Your task to perform on an android device: Install the News app Image 0: 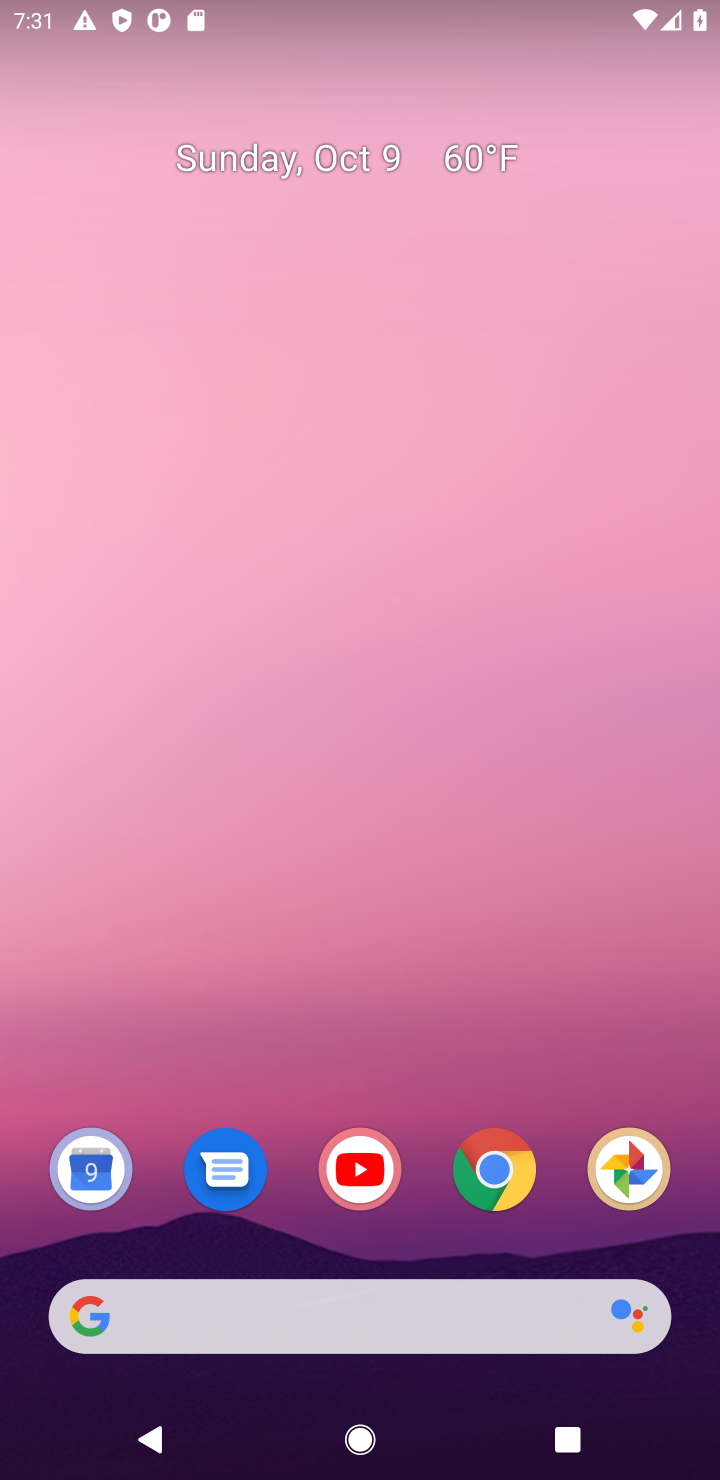
Step 0: drag from (407, 1173) to (454, 12)
Your task to perform on an android device: Install the News app Image 1: 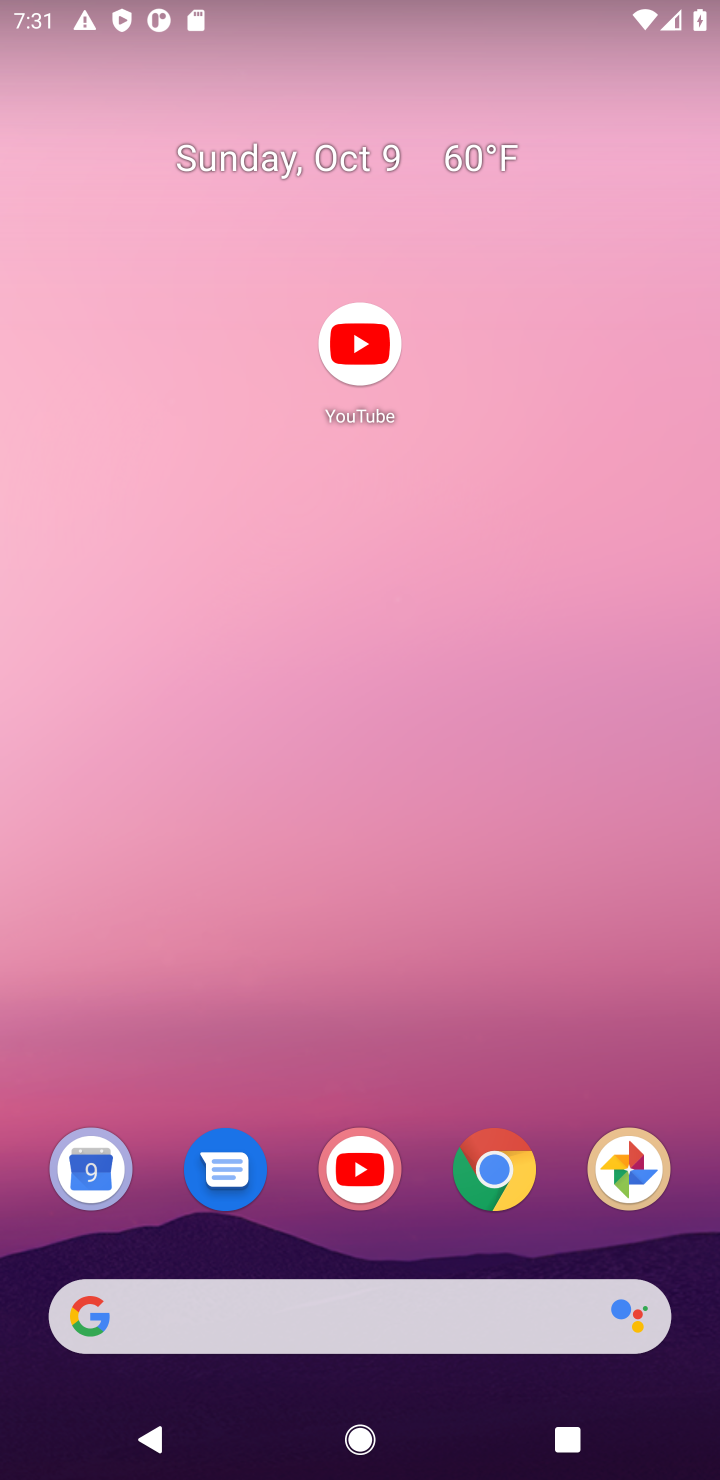
Step 1: drag from (382, 839) to (482, 125)
Your task to perform on an android device: Install the News app Image 2: 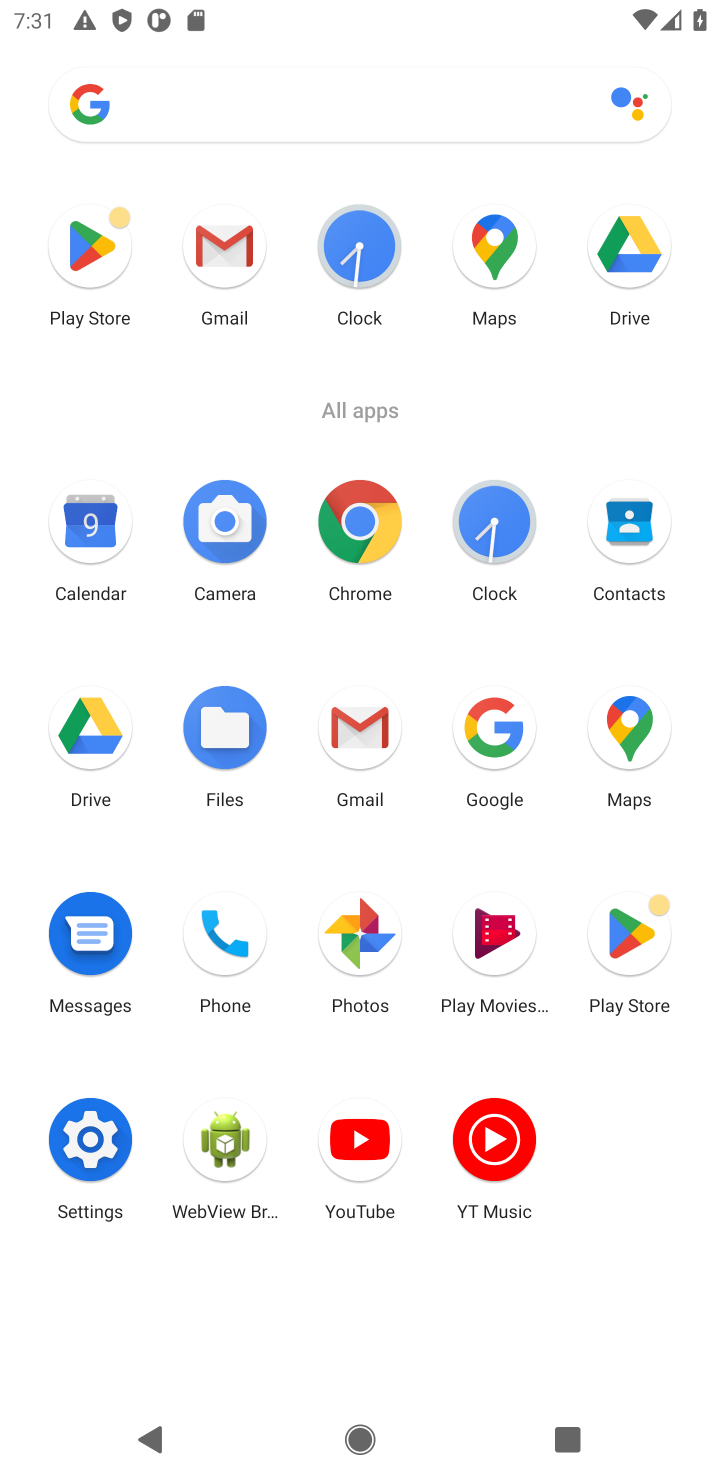
Step 2: click (644, 928)
Your task to perform on an android device: Install the News app Image 3: 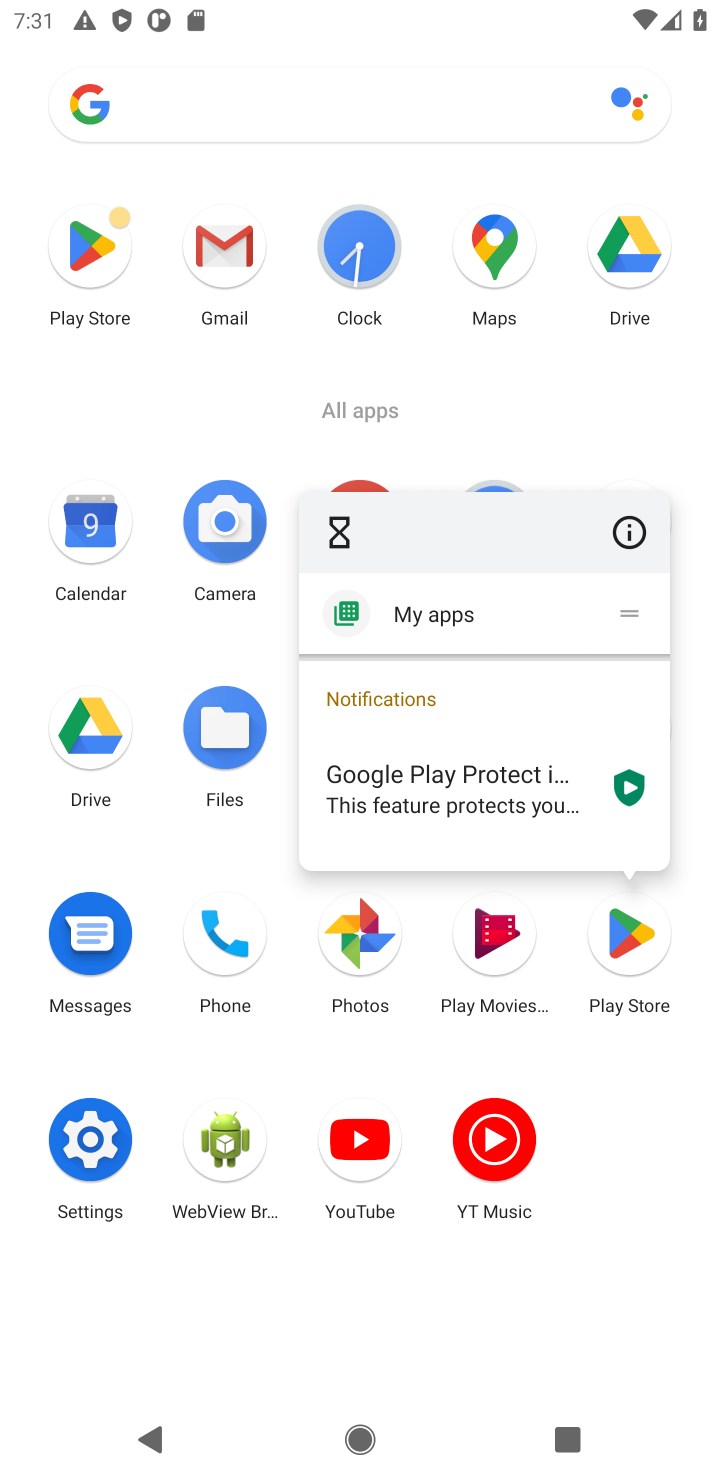
Step 3: click (632, 939)
Your task to perform on an android device: Install the News app Image 4: 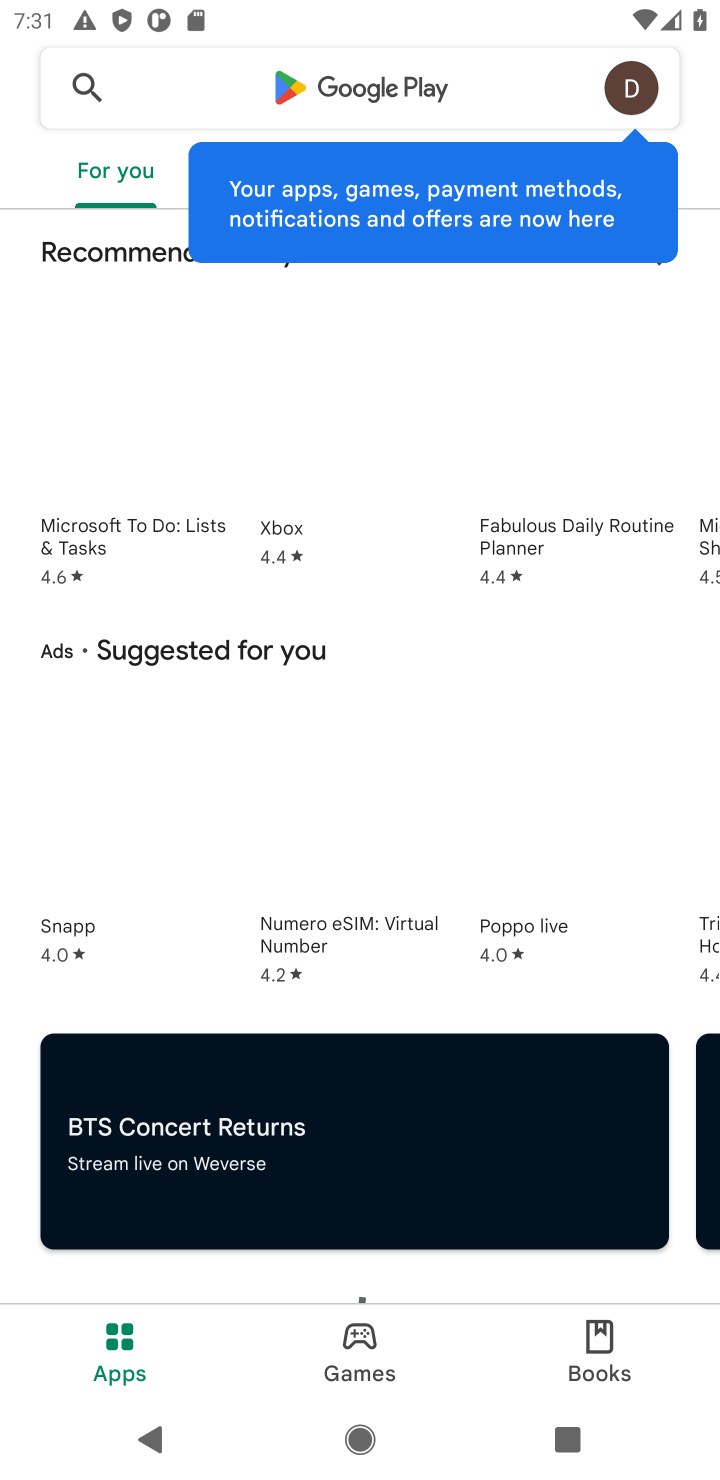
Step 4: click (325, 103)
Your task to perform on an android device: Install the News app Image 5: 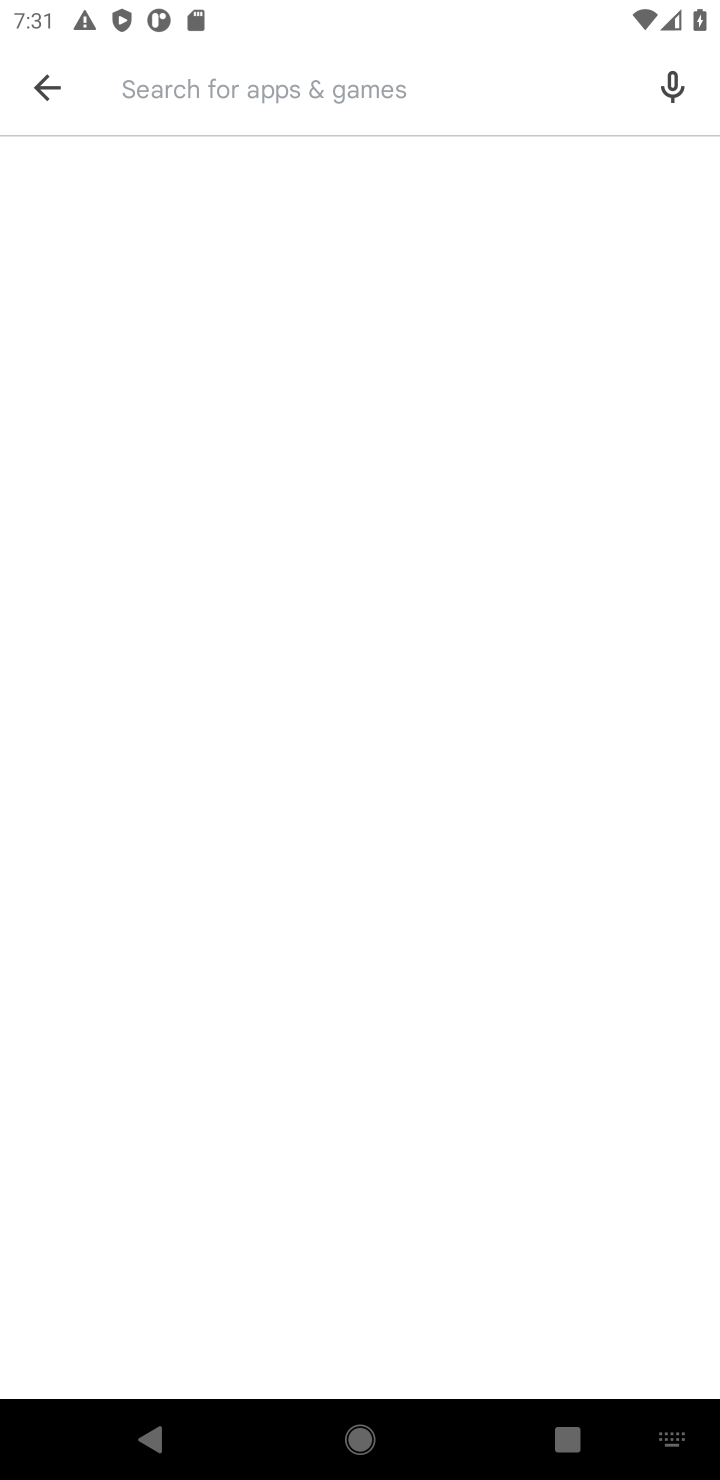
Step 5: type "news"
Your task to perform on an android device: Install the News app Image 6: 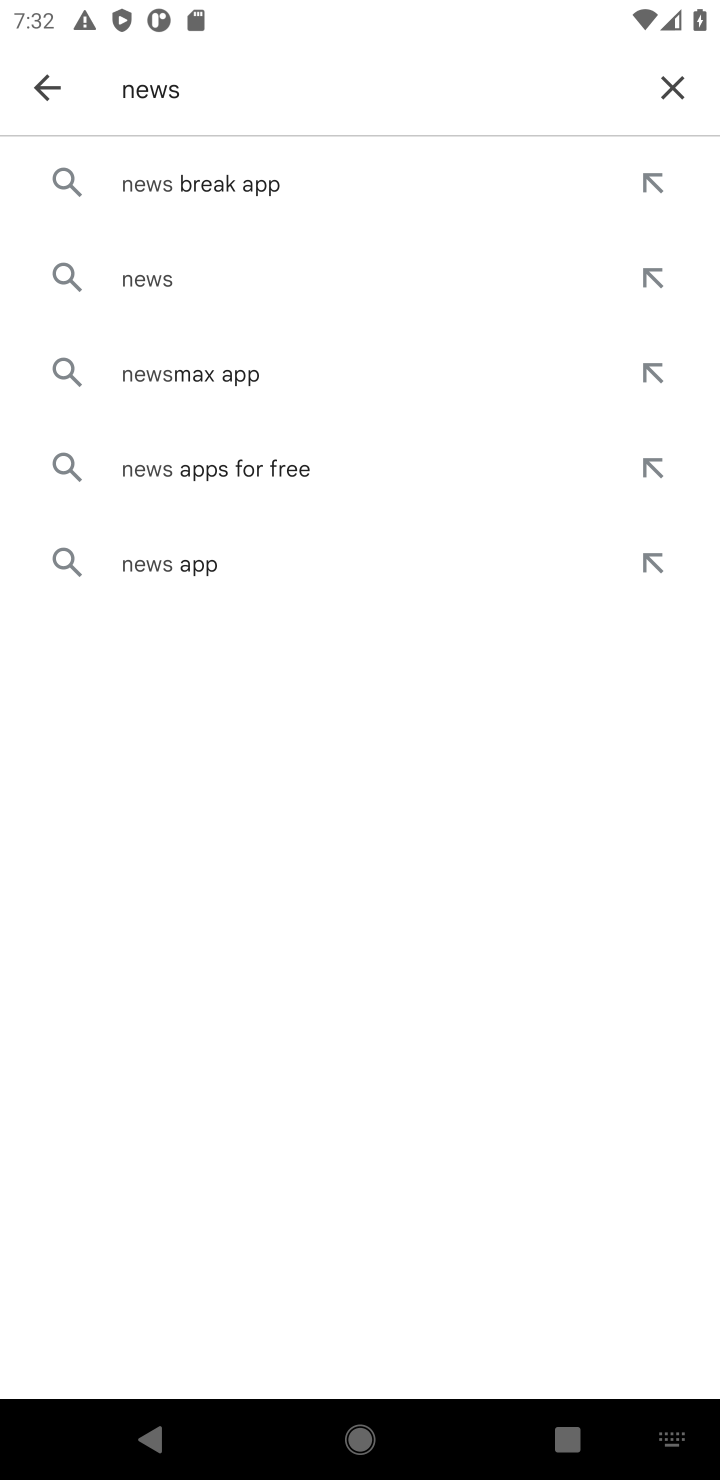
Step 6: press enter
Your task to perform on an android device: Install the News app Image 7: 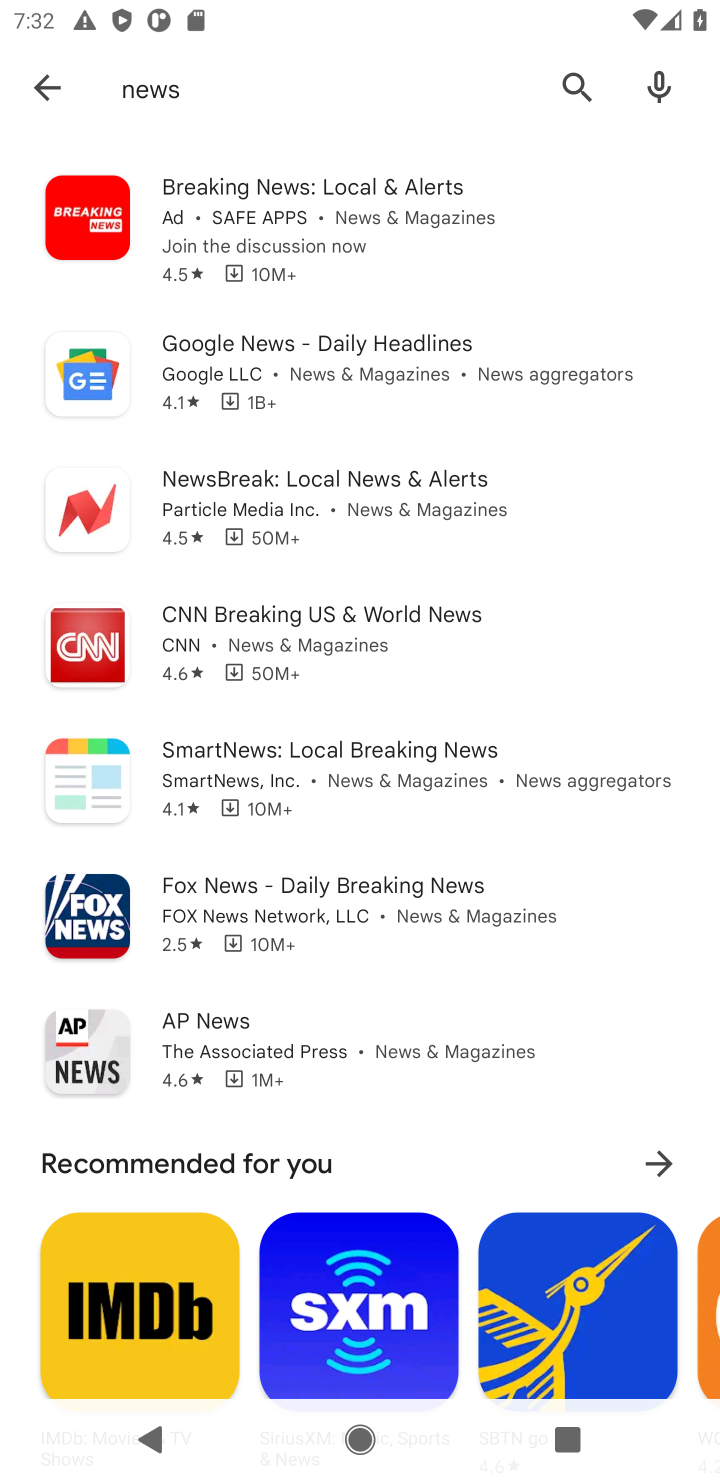
Step 7: press enter
Your task to perform on an android device: Install the News app Image 8: 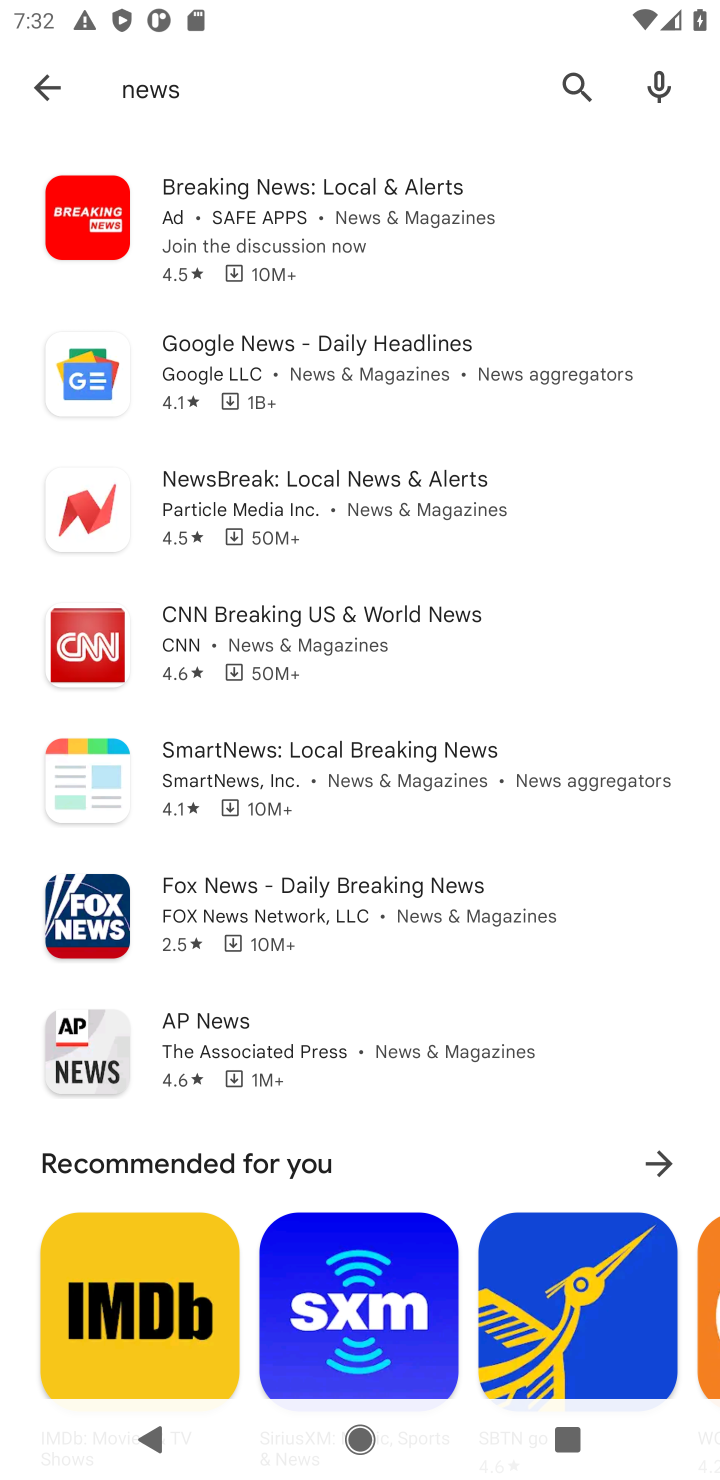
Step 8: press enter
Your task to perform on an android device: Install the News app Image 9: 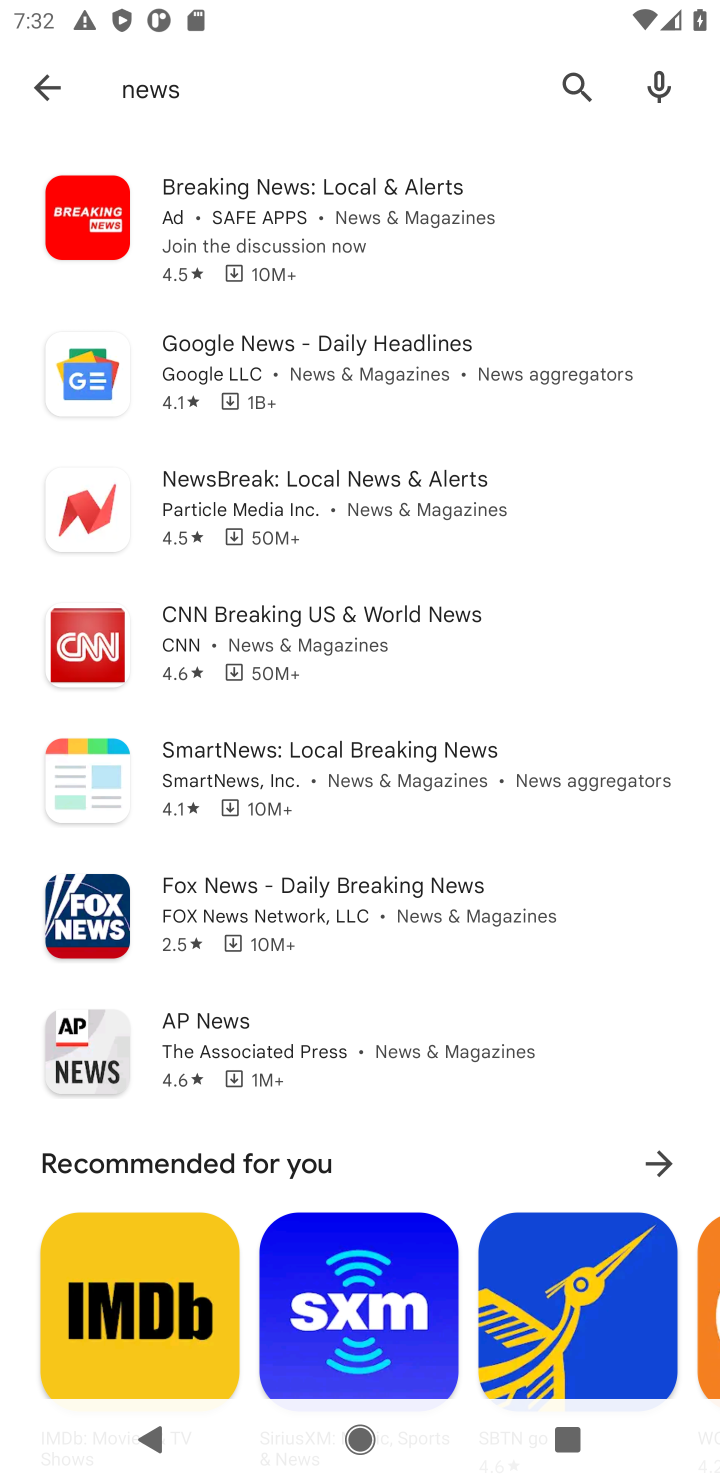
Step 9: press enter
Your task to perform on an android device: Install the News app Image 10: 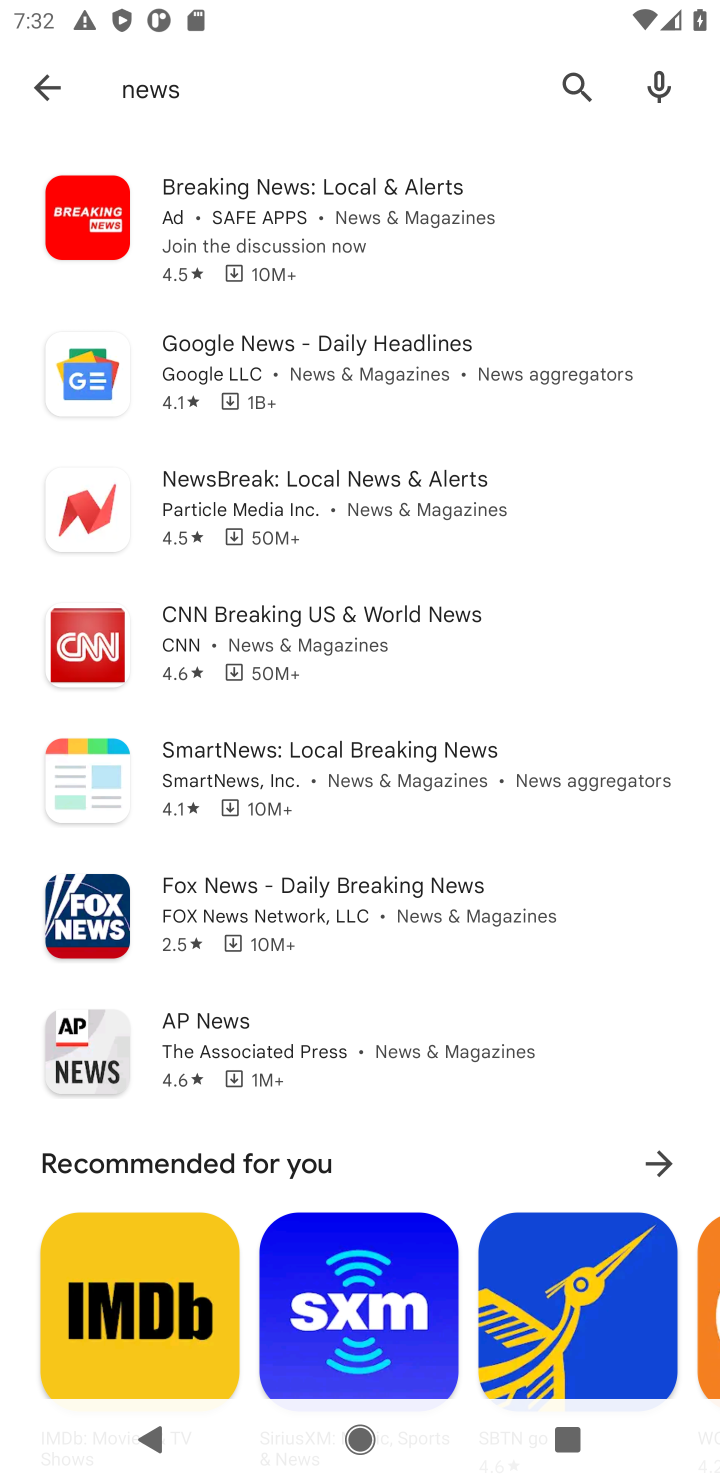
Step 10: click (252, 381)
Your task to perform on an android device: Install the News app Image 11: 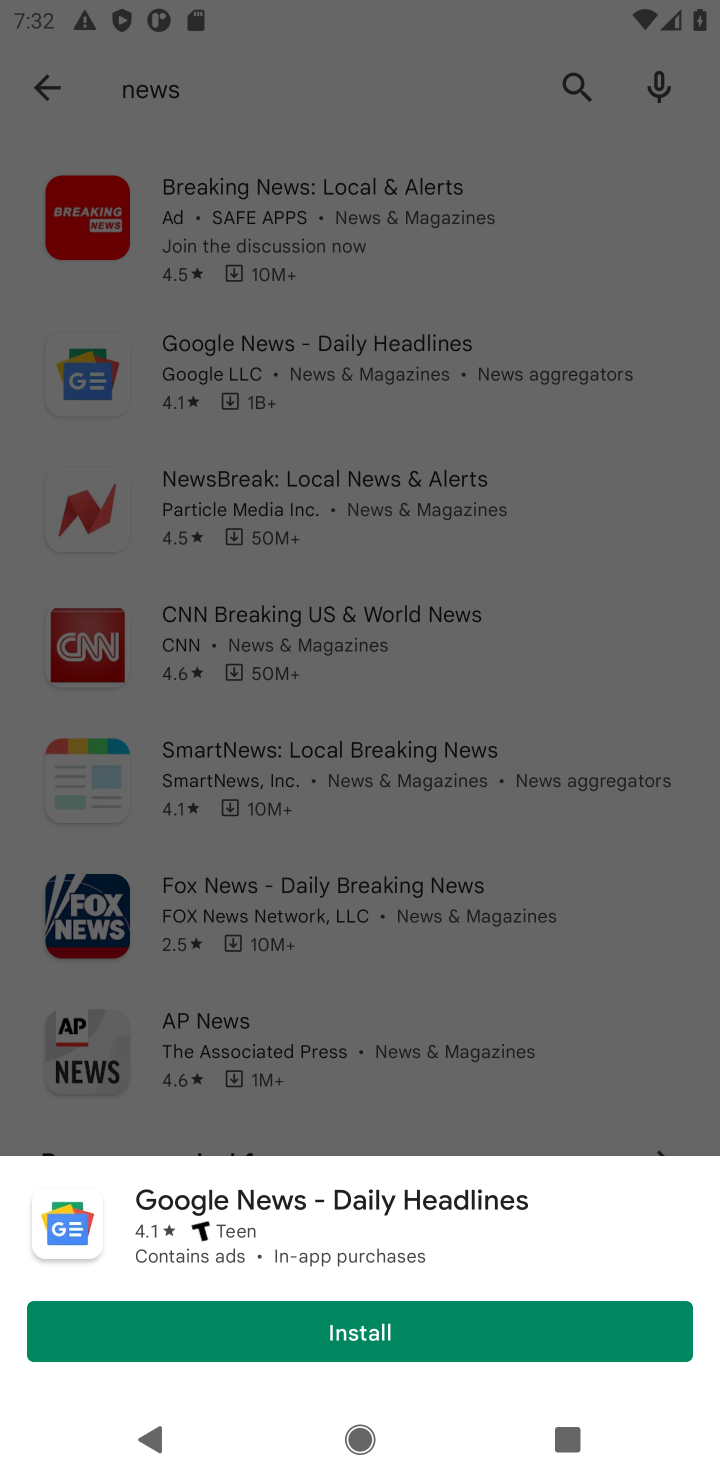
Step 11: click (313, 1322)
Your task to perform on an android device: Install the News app Image 12: 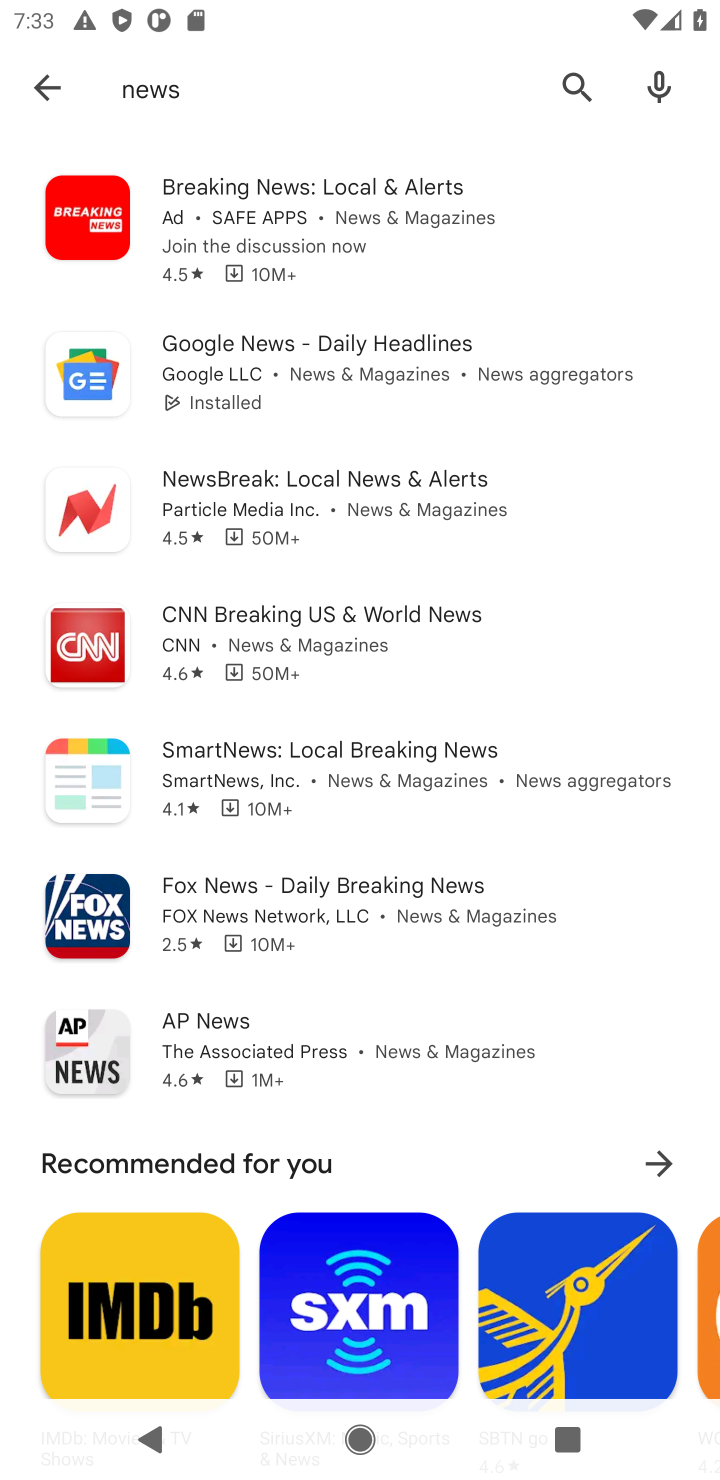
Step 12: task complete